Your task to perform on an android device: toggle javascript in the chrome app Image 0: 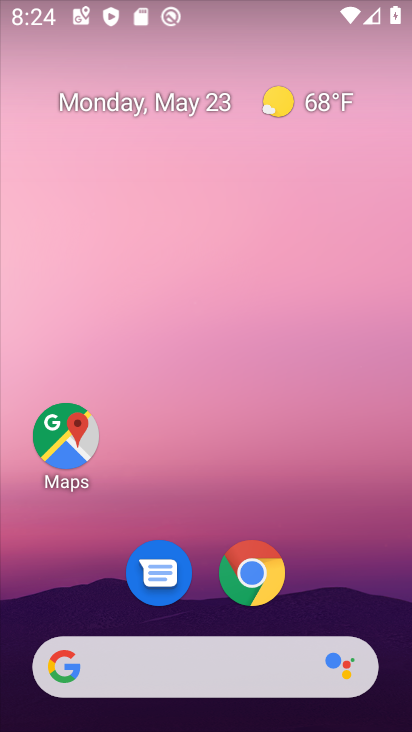
Step 0: click (259, 560)
Your task to perform on an android device: toggle javascript in the chrome app Image 1: 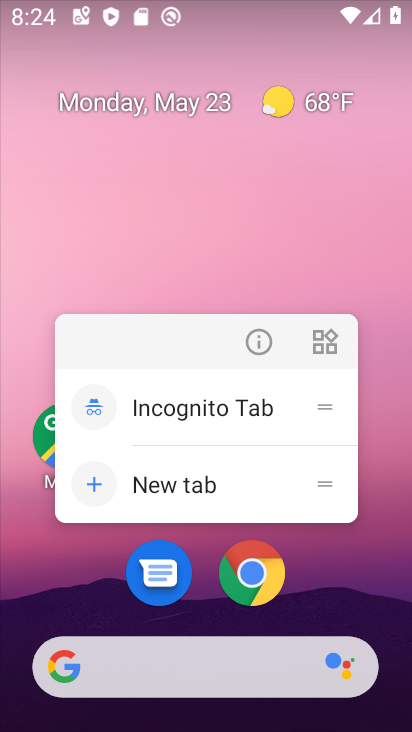
Step 1: click (262, 585)
Your task to perform on an android device: toggle javascript in the chrome app Image 2: 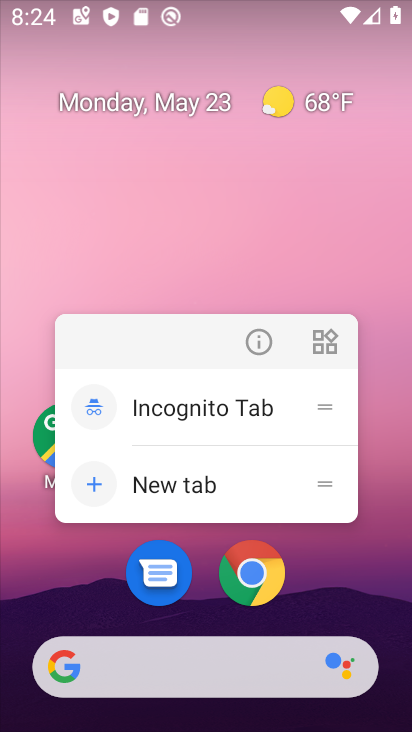
Step 2: click (262, 582)
Your task to perform on an android device: toggle javascript in the chrome app Image 3: 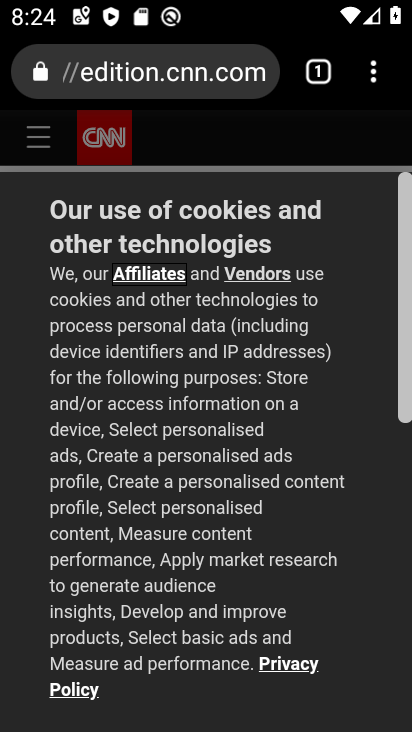
Step 3: click (370, 84)
Your task to perform on an android device: toggle javascript in the chrome app Image 4: 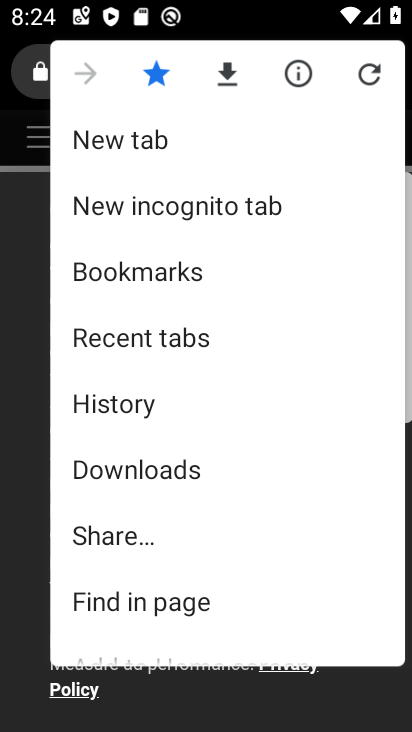
Step 4: drag from (214, 498) to (194, 129)
Your task to perform on an android device: toggle javascript in the chrome app Image 5: 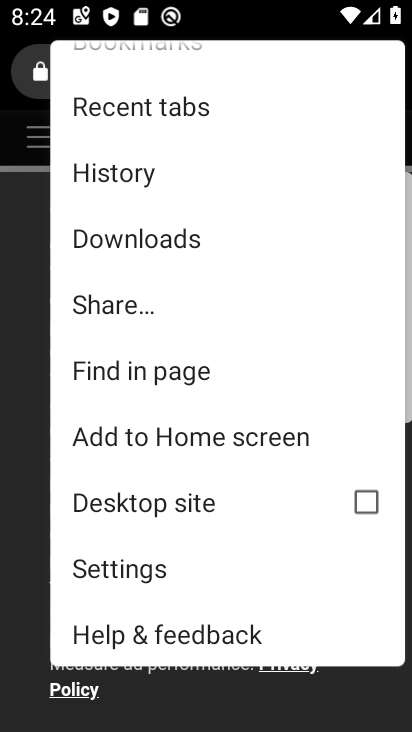
Step 5: click (146, 570)
Your task to perform on an android device: toggle javascript in the chrome app Image 6: 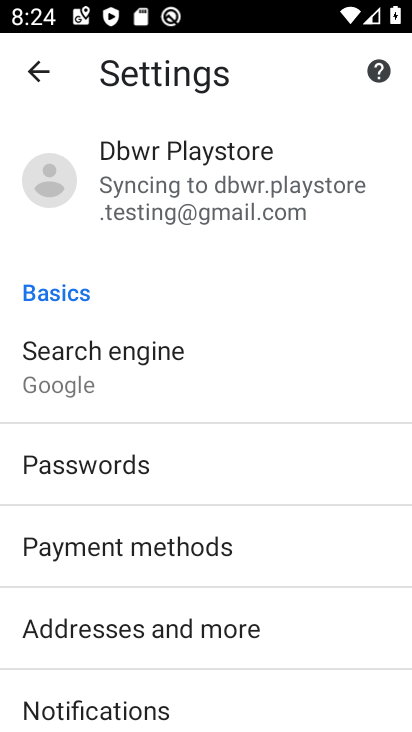
Step 6: drag from (193, 561) to (196, 281)
Your task to perform on an android device: toggle javascript in the chrome app Image 7: 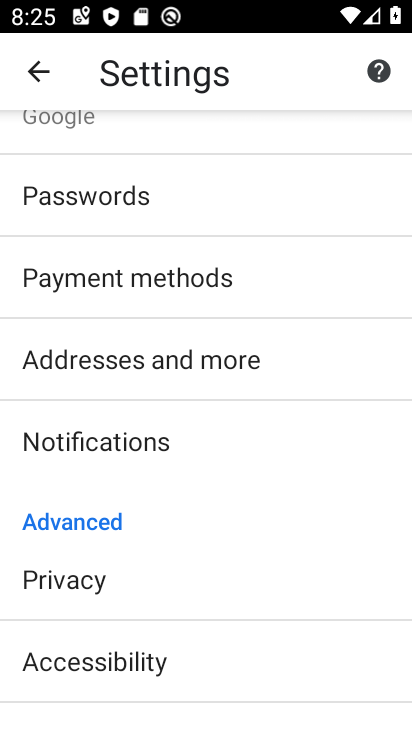
Step 7: drag from (140, 529) to (221, 161)
Your task to perform on an android device: toggle javascript in the chrome app Image 8: 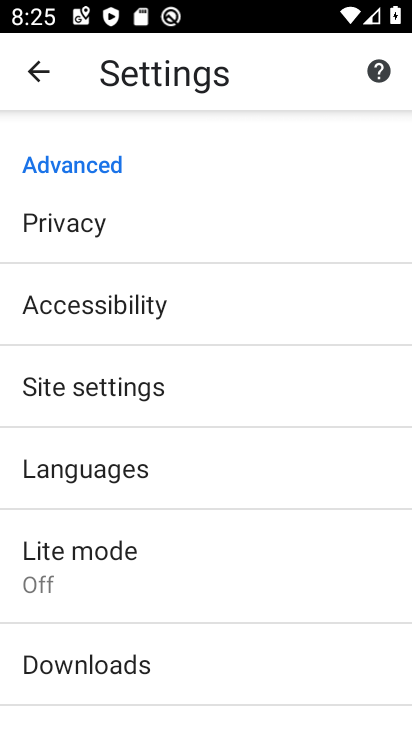
Step 8: click (177, 387)
Your task to perform on an android device: toggle javascript in the chrome app Image 9: 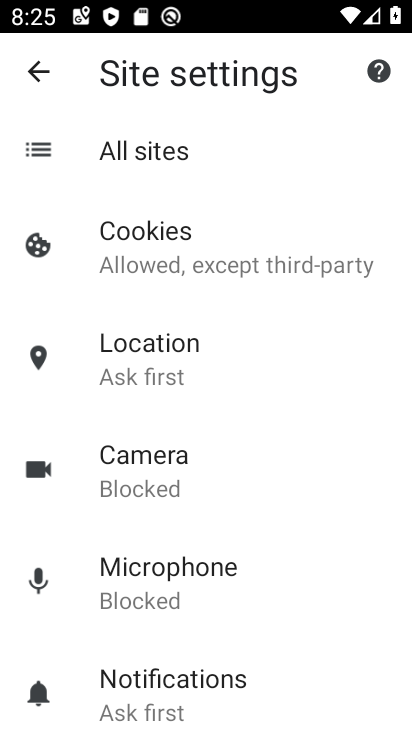
Step 9: drag from (197, 526) to (245, 246)
Your task to perform on an android device: toggle javascript in the chrome app Image 10: 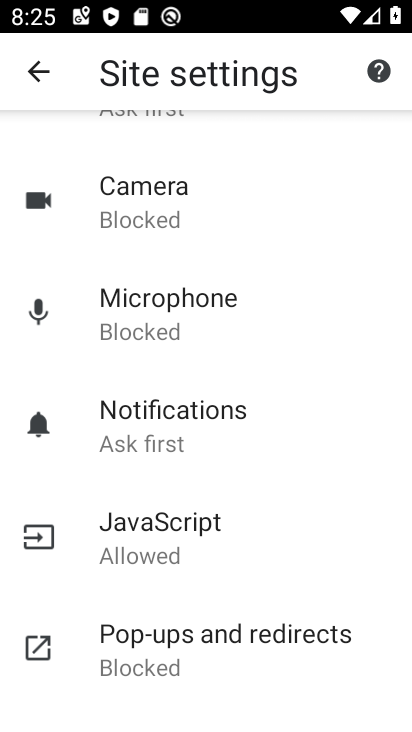
Step 10: click (205, 545)
Your task to perform on an android device: toggle javascript in the chrome app Image 11: 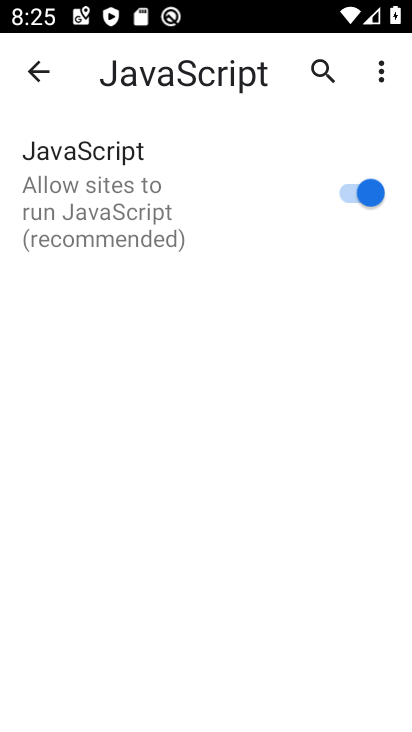
Step 11: click (340, 201)
Your task to perform on an android device: toggle javascript in the chrome app Image 12: 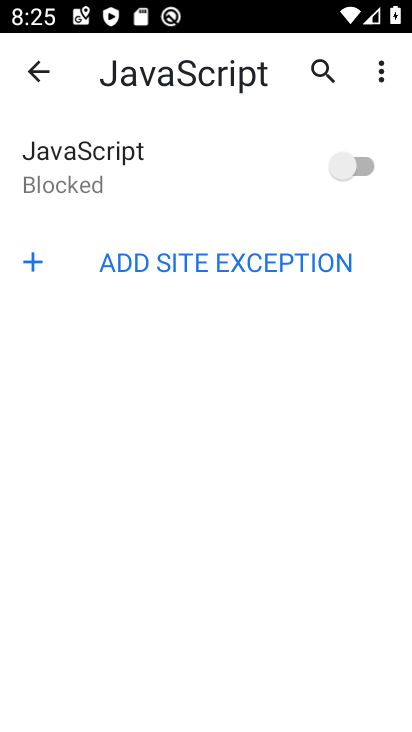
Step 12: task complete